Your task to perform on an android device: What's the weather? Image 0: 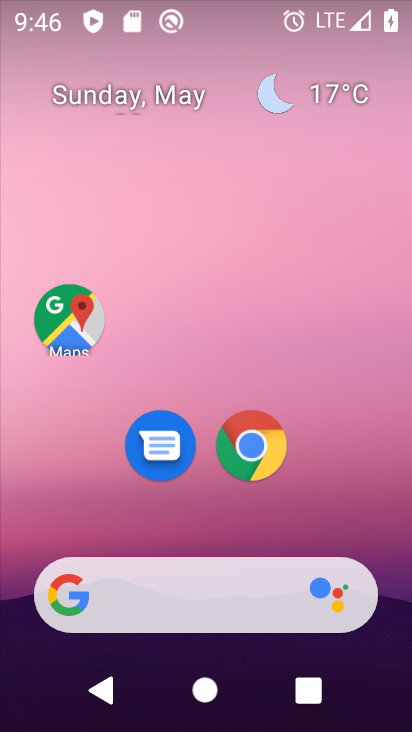
Step 0: click (306, 55)
Your task to perform on an android device: What's the weather? Image 1: 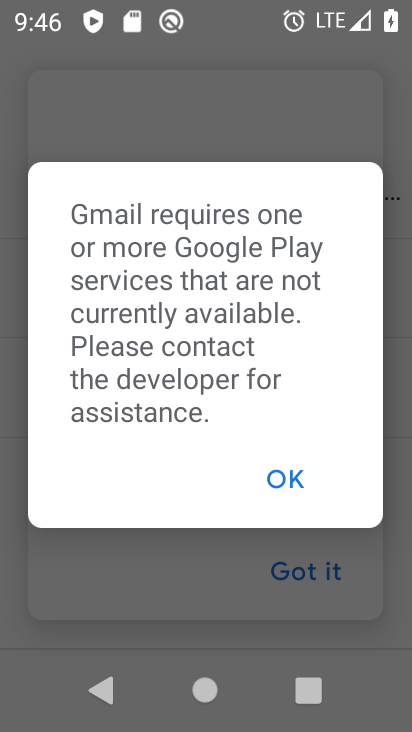
Step 1: press home button
Your task to perform on an android device: What's the weather? Image 2: 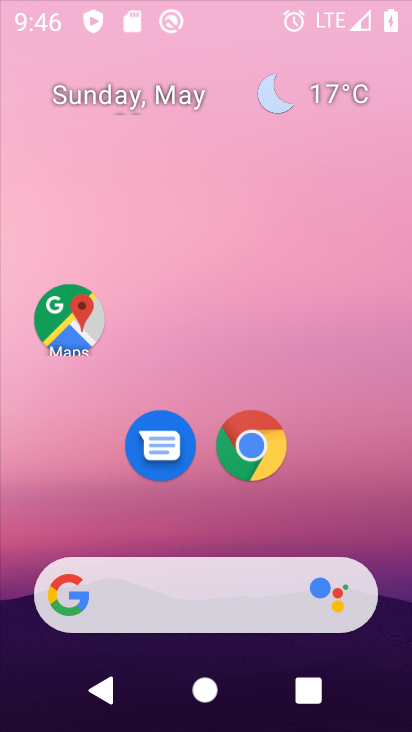
Step 2: drag from (241, 620) to (358, 50)
Your task to perform on an android device: What's the weather? Image 3: 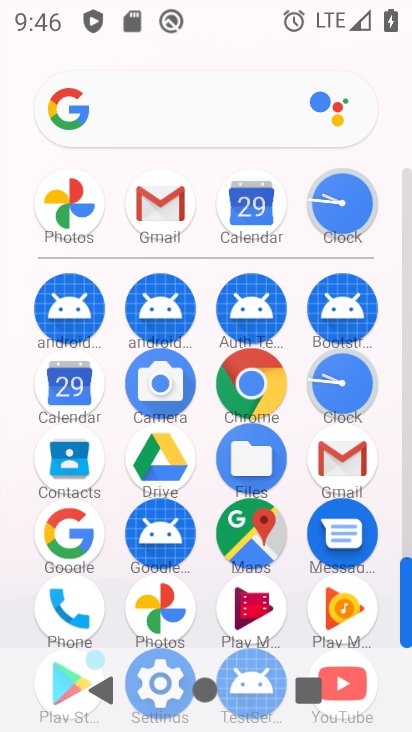
Step 3: click (181, 81)
Your task to perform on an android device: What's the weather? Image 4: 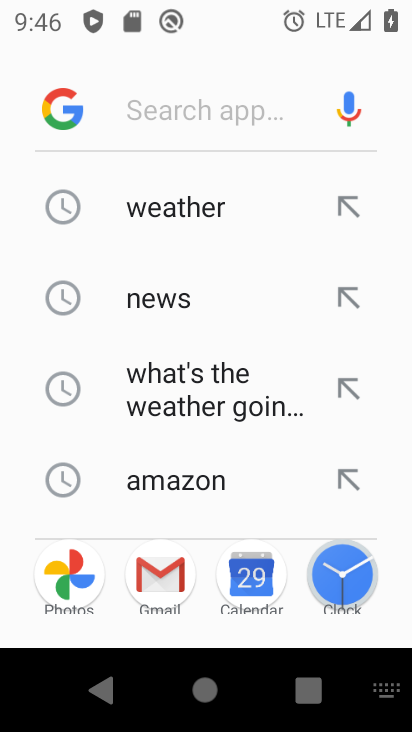
Step 4: click (155, 218)
Your task to perform on an android device: What's the weather? Image 5: 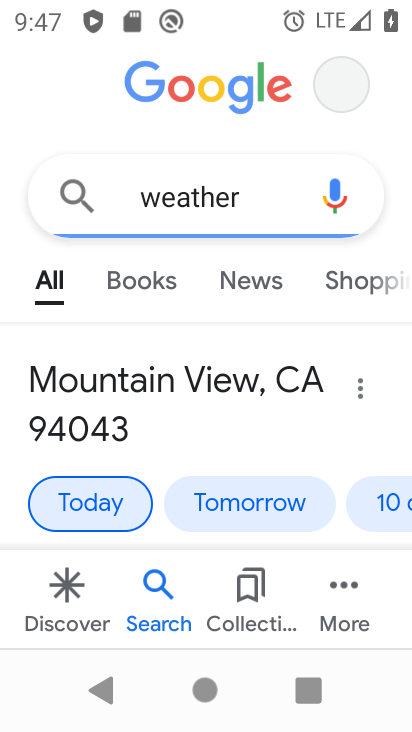
Step 5: drag from (204, 497) to (299, 199)
Your task to perform on an android device: What's the weather? Image 6: 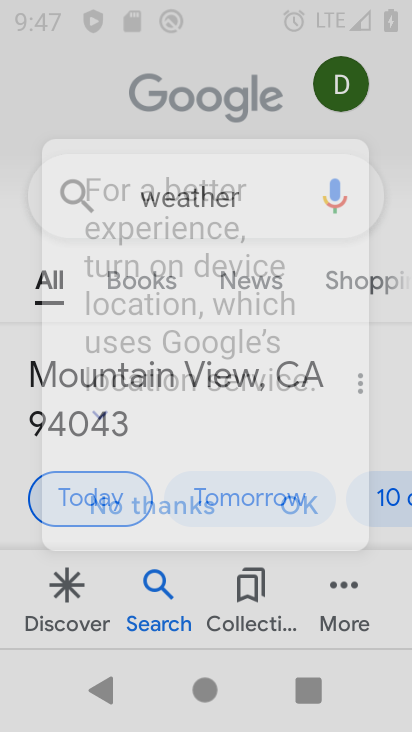
Step 6: drag from (247, 477) to (403, 90)
Your task to perform on an android device: What's the weather? Image 7: 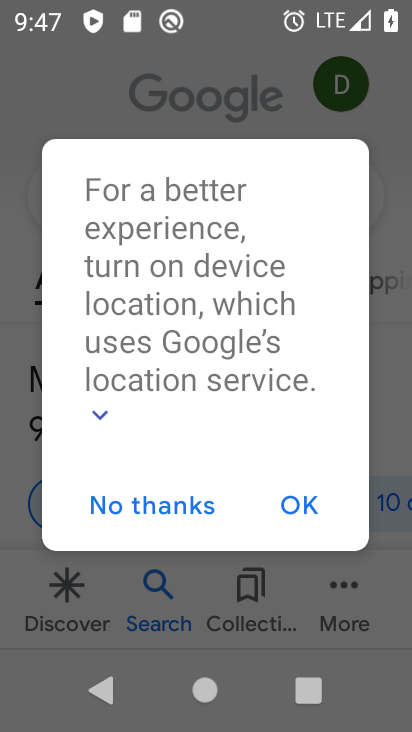
Step 7: click (293, 497)
Your task to perform on an android device: What's the weather? Image 8: 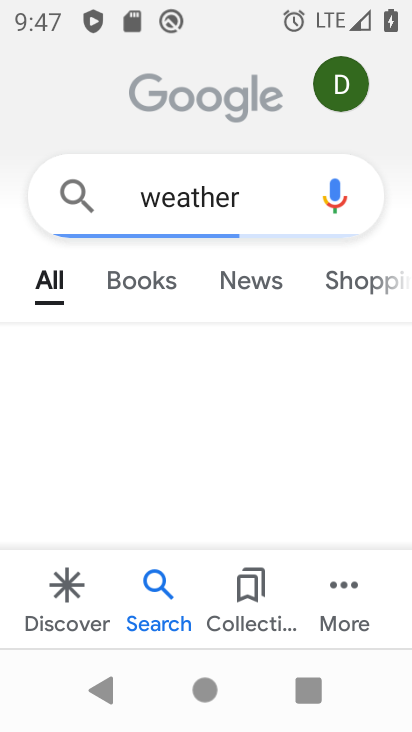
Step 8: task complete